Your task to perform on an android device: Clear all items from cart on costco.com. Search for asus rog on costco.com, select the first entry, add it to the cart, then select checkout. Image 0: 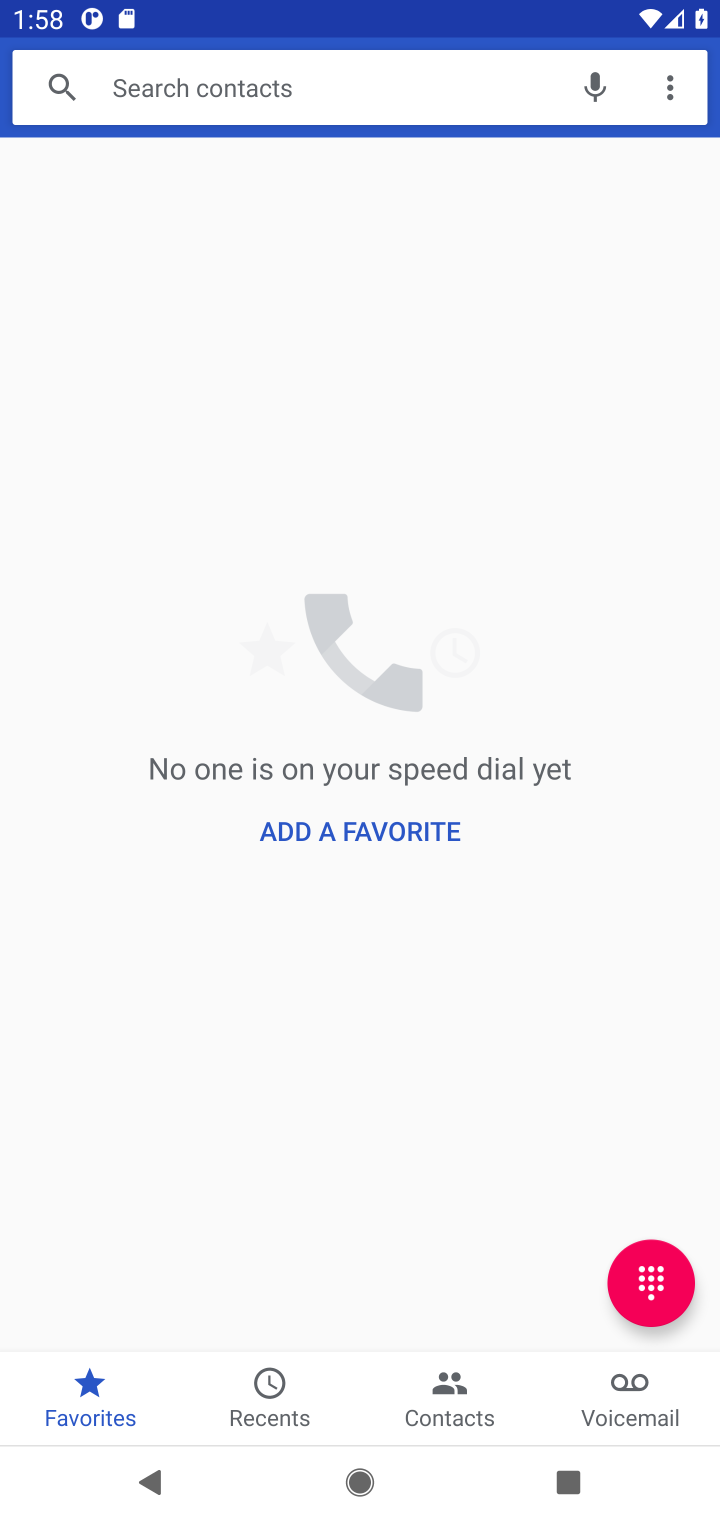
Step 0: press home button
Your task to perform on an android device: Clear all items from cart on costco.com. Search for asus rog on costco.com, select the first entry, add it to the cart, then select checkout. Image 1: 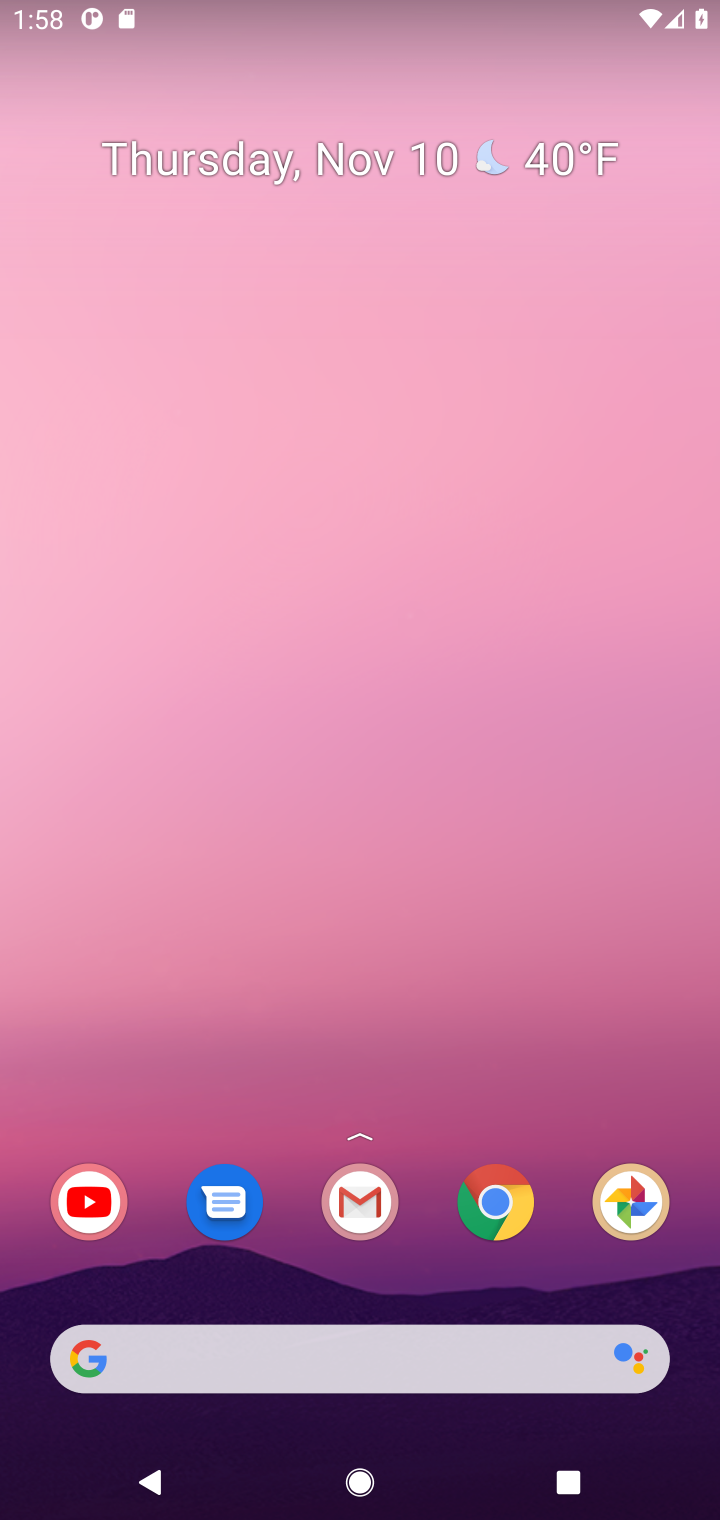
Step 1: click (490, 1210)
Your task to perform on an android device: Clear all items from cart on costco.com. Search for asus rog on costco.com, select the first entry, add it to the cart, then select checkout. Image 2: 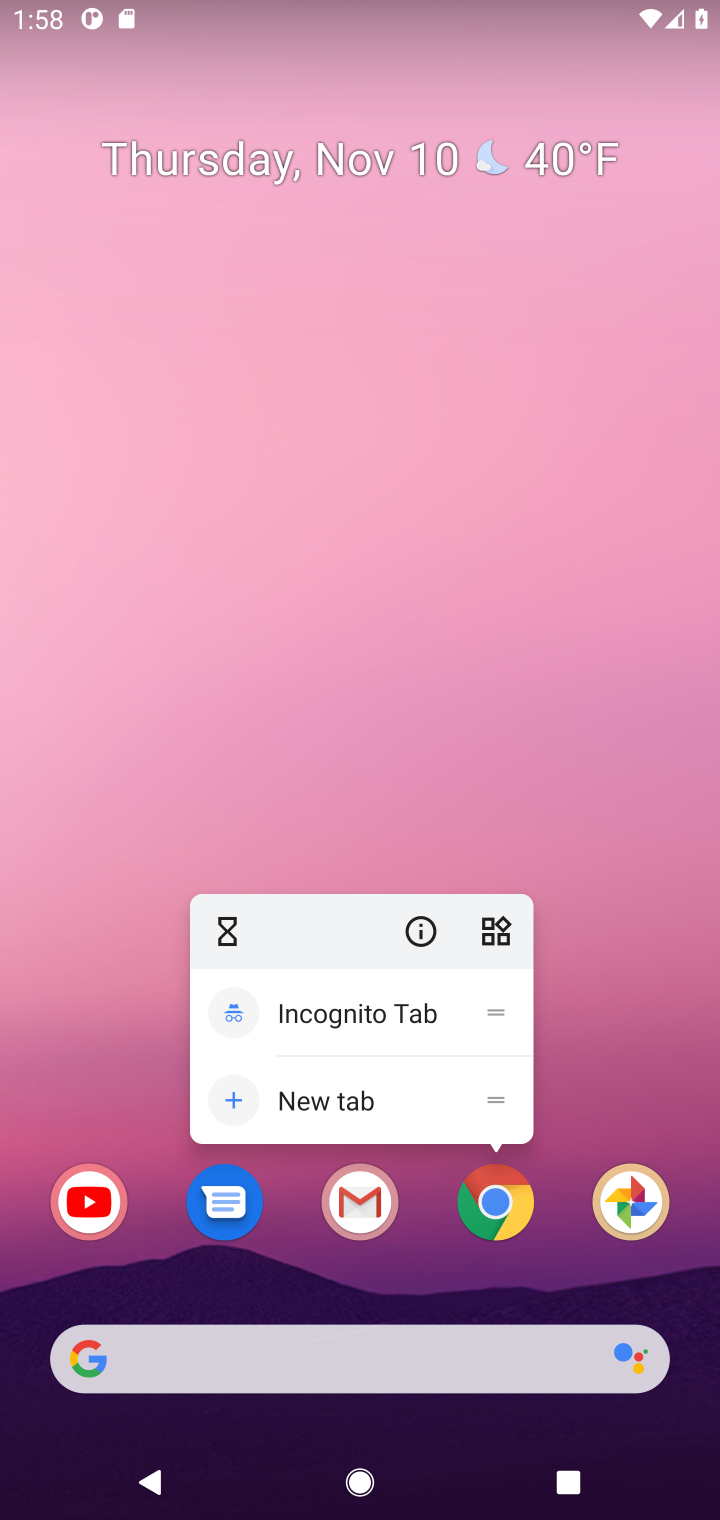
Step 2: click (490, 1208)
Your task to perform on an android device: Clear all items from cart on costco.com. Search for asus rog on costco.com, select the first entry, add it to the cart, then select checkout. Image 3: 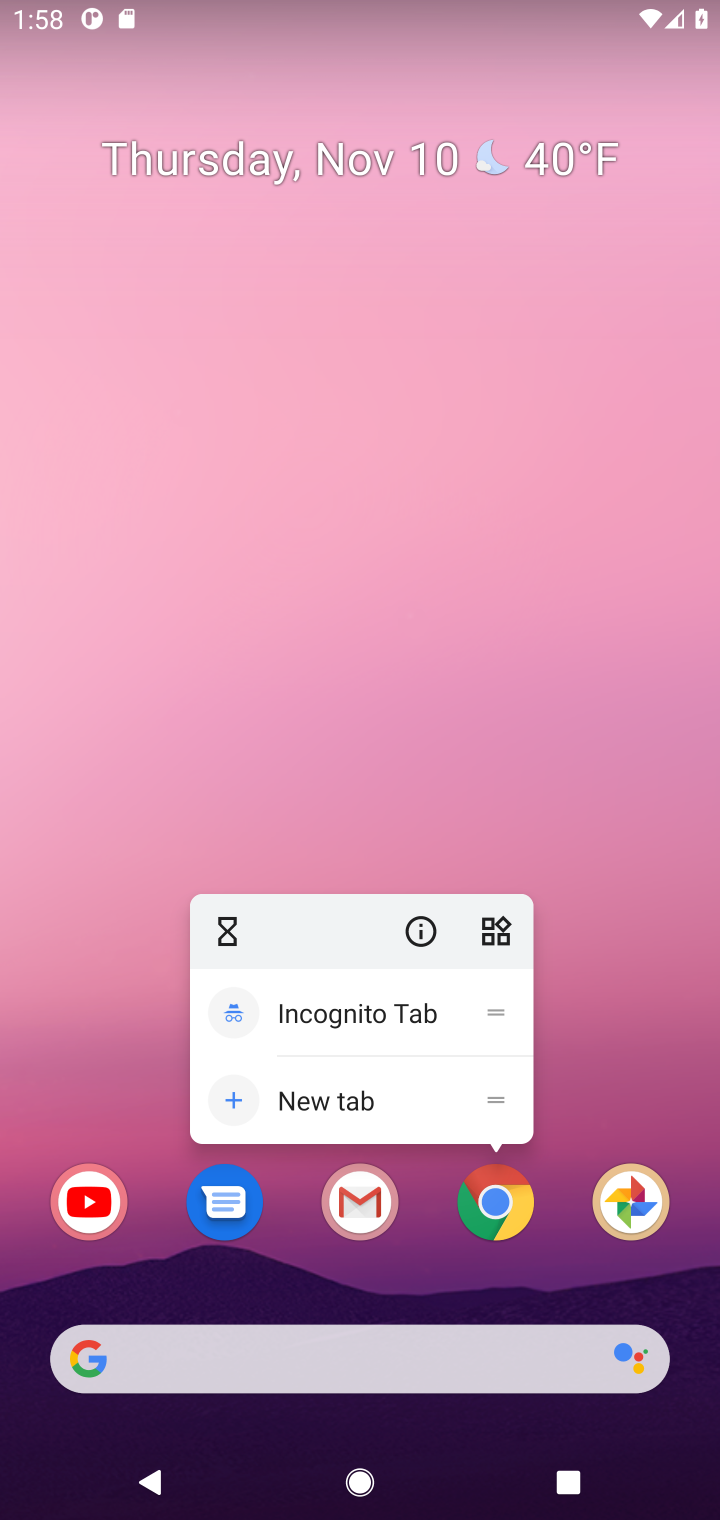
Step 3: click (490, 1210)
Your task to perform on an android device: Clear all items from cart on costco.com. Search for asus rog on costco.com, select the first entry, add it to the cart, then select checkout. Image 4: 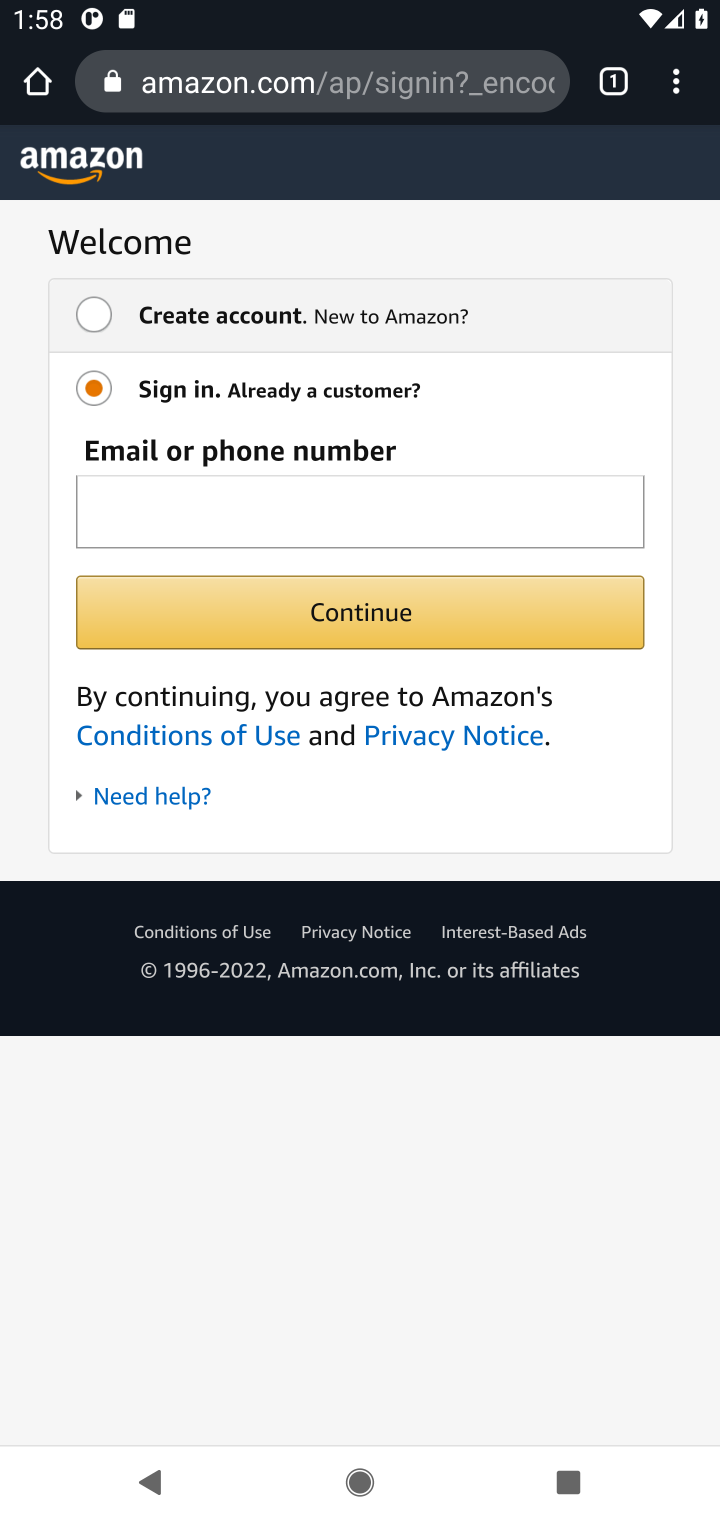
Step 4: click (390, 88)
Your task to perform on an android device: Clear all items from cart on costco.com. Search for asus rog on costco.com, select the first entry, add it to the cart, then select checkout. Image 5: 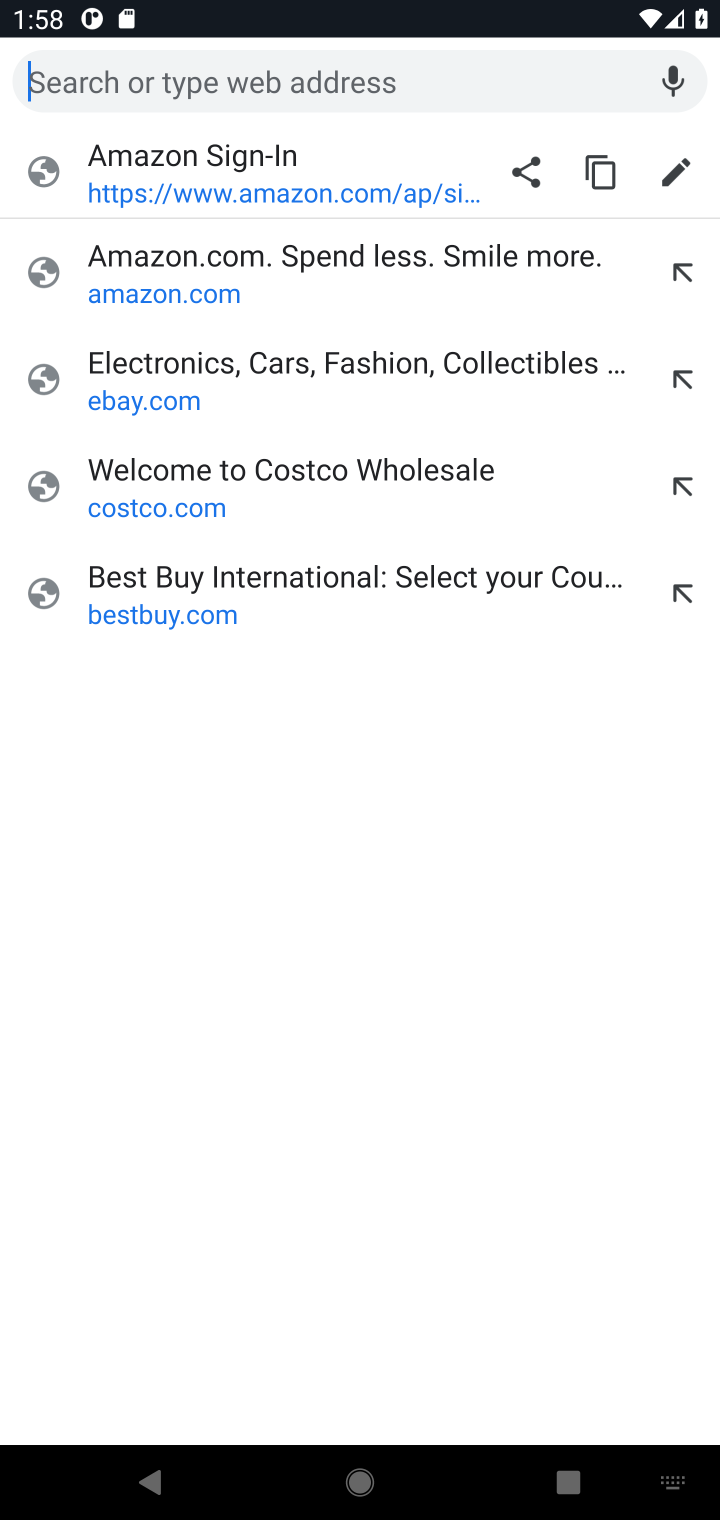
Step 5: click (129, 502)
Your task to perform on an android device: Clear all items from cart on costco.com. Search for asus rog on costco.com, select the first entry, add it to the cart, then select checkout. Image 6: 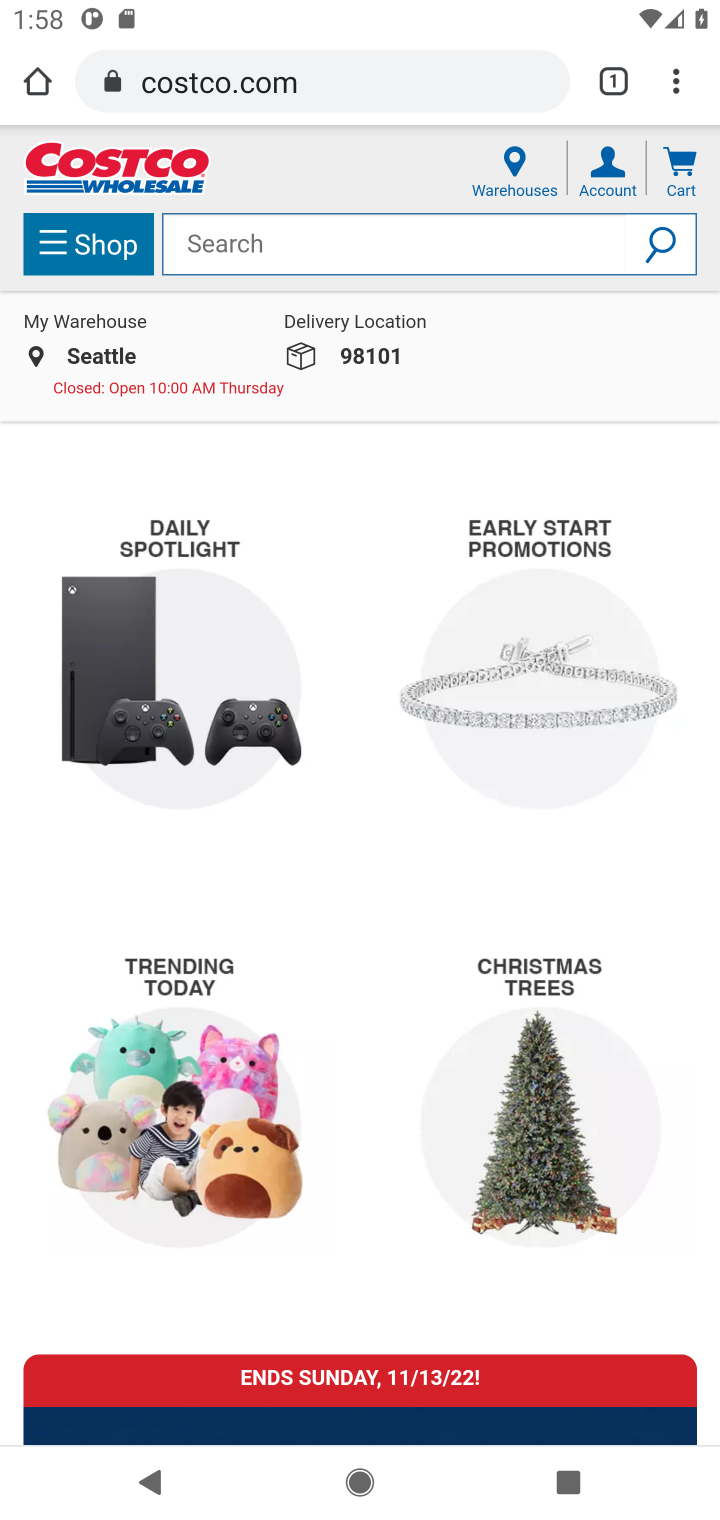
Step 6: click (323, 243)
Your task to perform on an android device: Clear all items from cart on costco.com. Search for asus rog on costco.com, select the first entry, add it to the cart, then select checkout. Image 7: 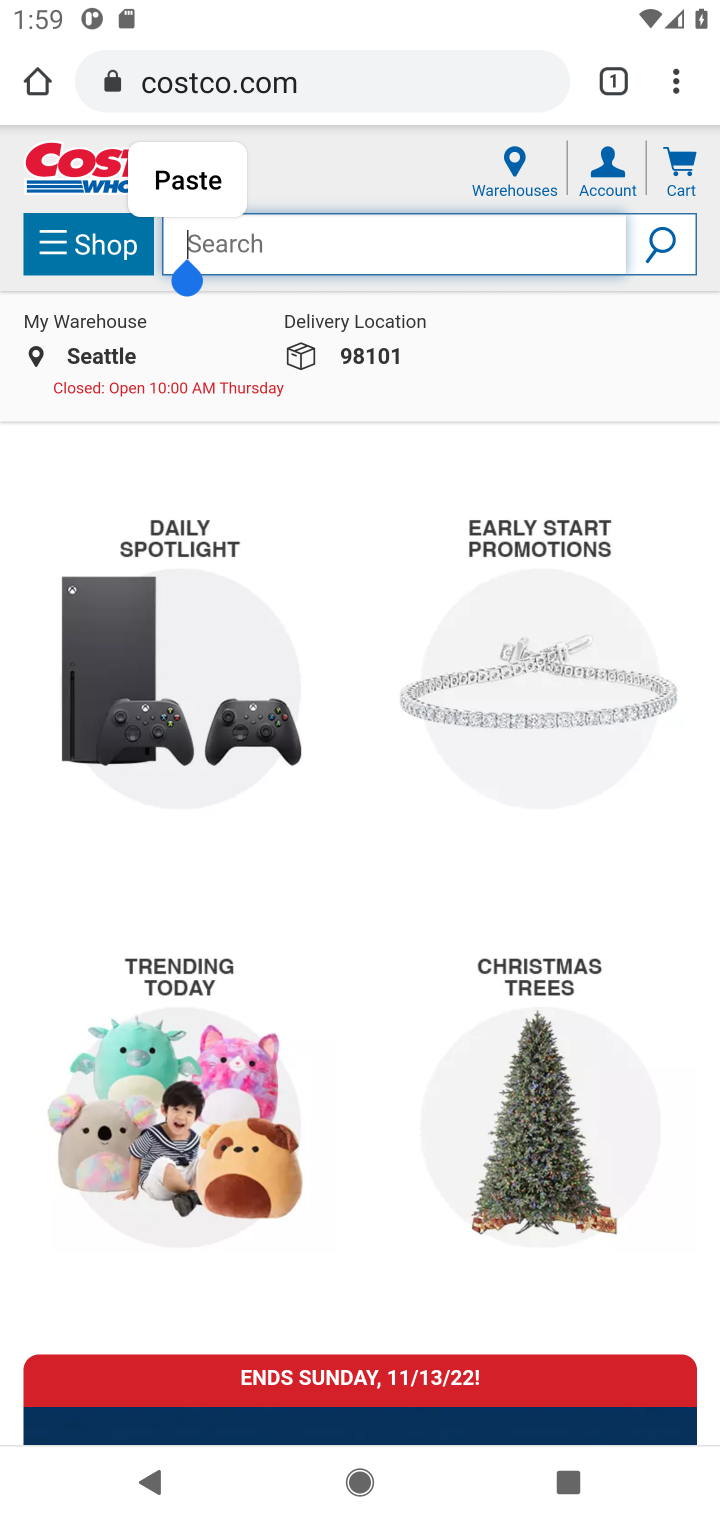
Step 7: type "asus rog"
Your task to perform on an android device: Clear all items from cart on costco.com. Search for asus rog on costco.com, select the first entry, add it to the cart, then select checkout. Image 8: 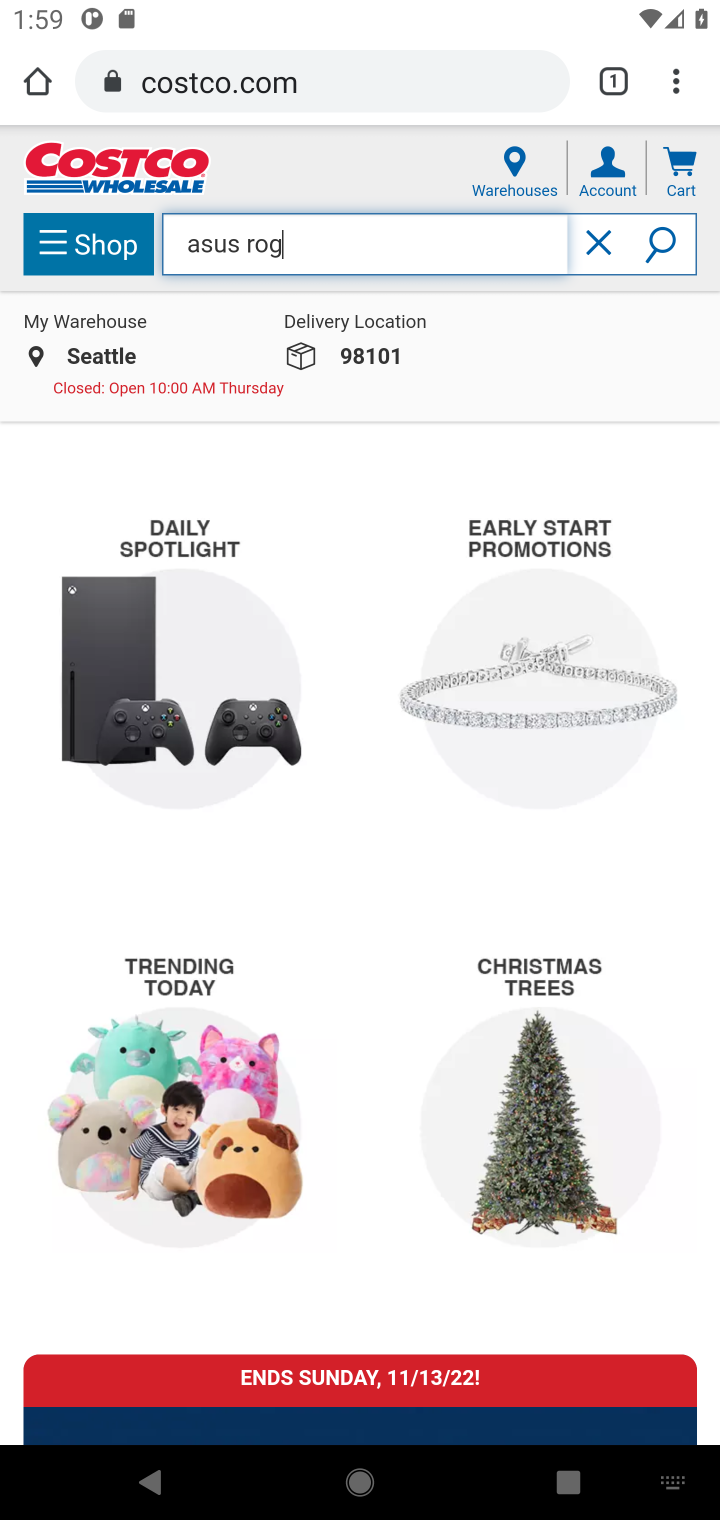
Step 8: press enter
Your task to perform on an android device: Clear all items from cart on costco.com. Search for asus rog on costco.com, select the first entry, add it to the cart, then select checkout. Image 9: 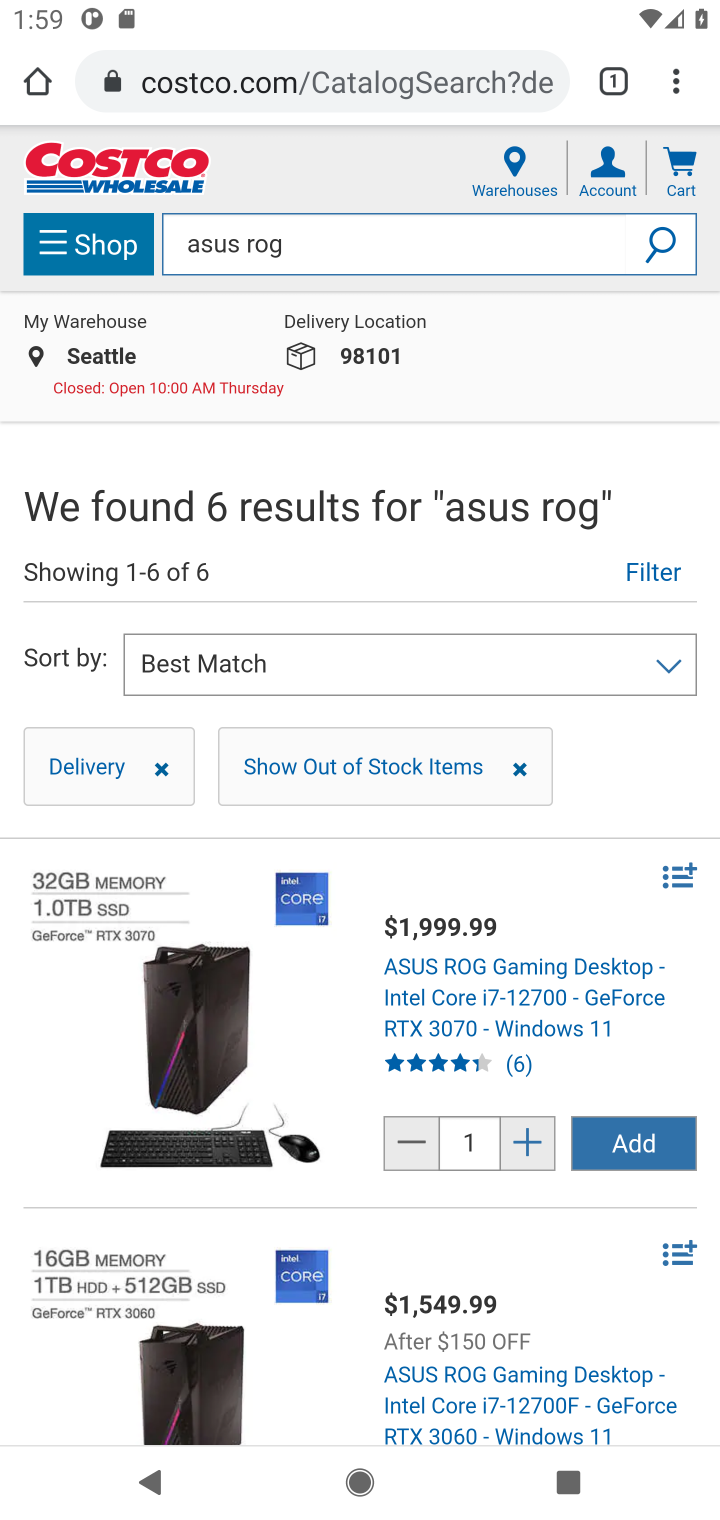
Step 9: click (636, 1135)
Your task to perform on an android device: Clear all items from cart on costco.com. Search for asus rog on costco.com, select the first entry, add it to the cart, then select checkout. Image 10: 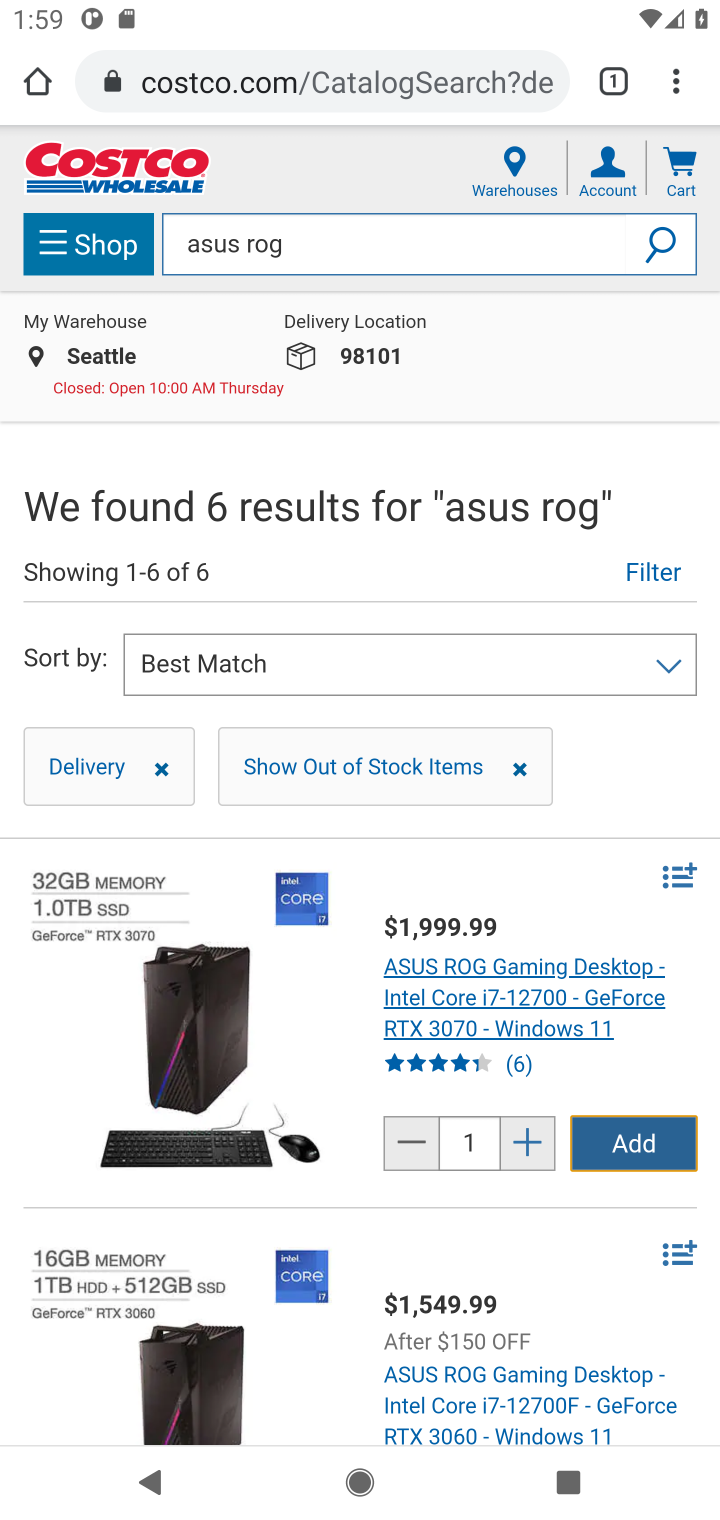
Step 10: click (639, 1152)
Your task to perform on an android device: Clear all items from cart on costco.com. Search for asus rog on costco.com, select the first entry, add it to the cart, then select checkout. Image 11: 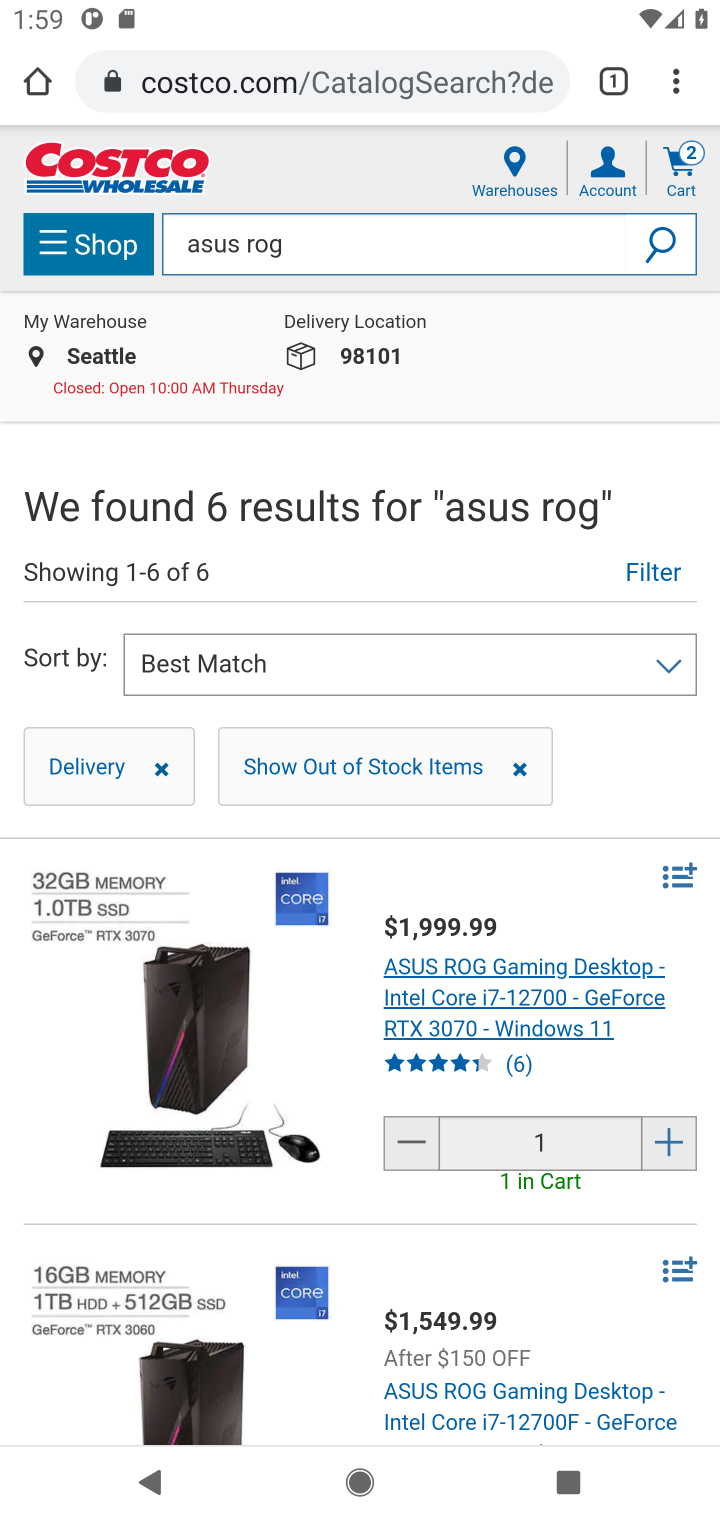
Step 11: click (687, 158)
Your task to perform on an android device: Clear all items from cart on costco.com. Search for asus rog on costco.com, select the first entry, add it to the cart, then select checkout. Image 12: 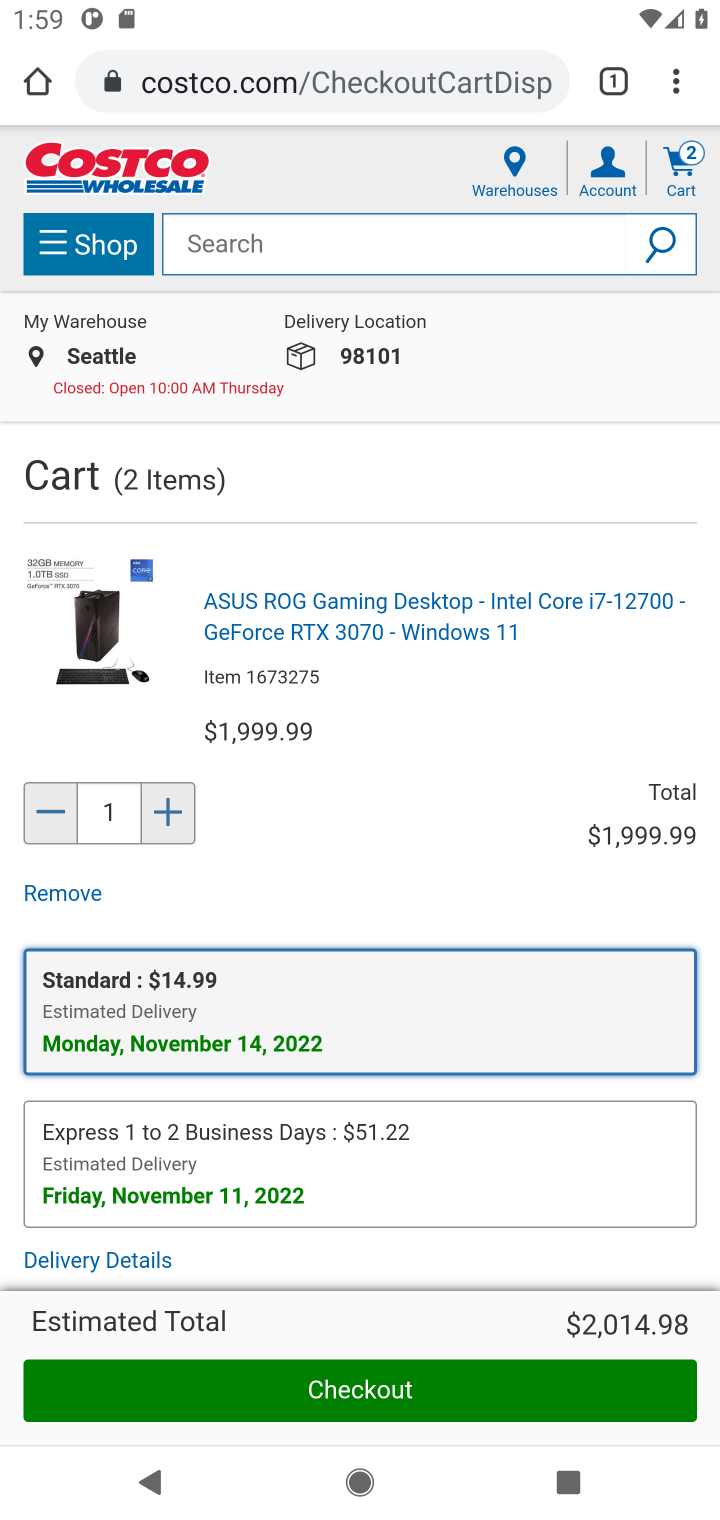
Step 12: click (397, 1387)
Your task to perform on an android device: Clear all items from cart on costco.com. Search for asus rog on costco.com, select the first entry, add it to the cart, then select checkout. Image 13: 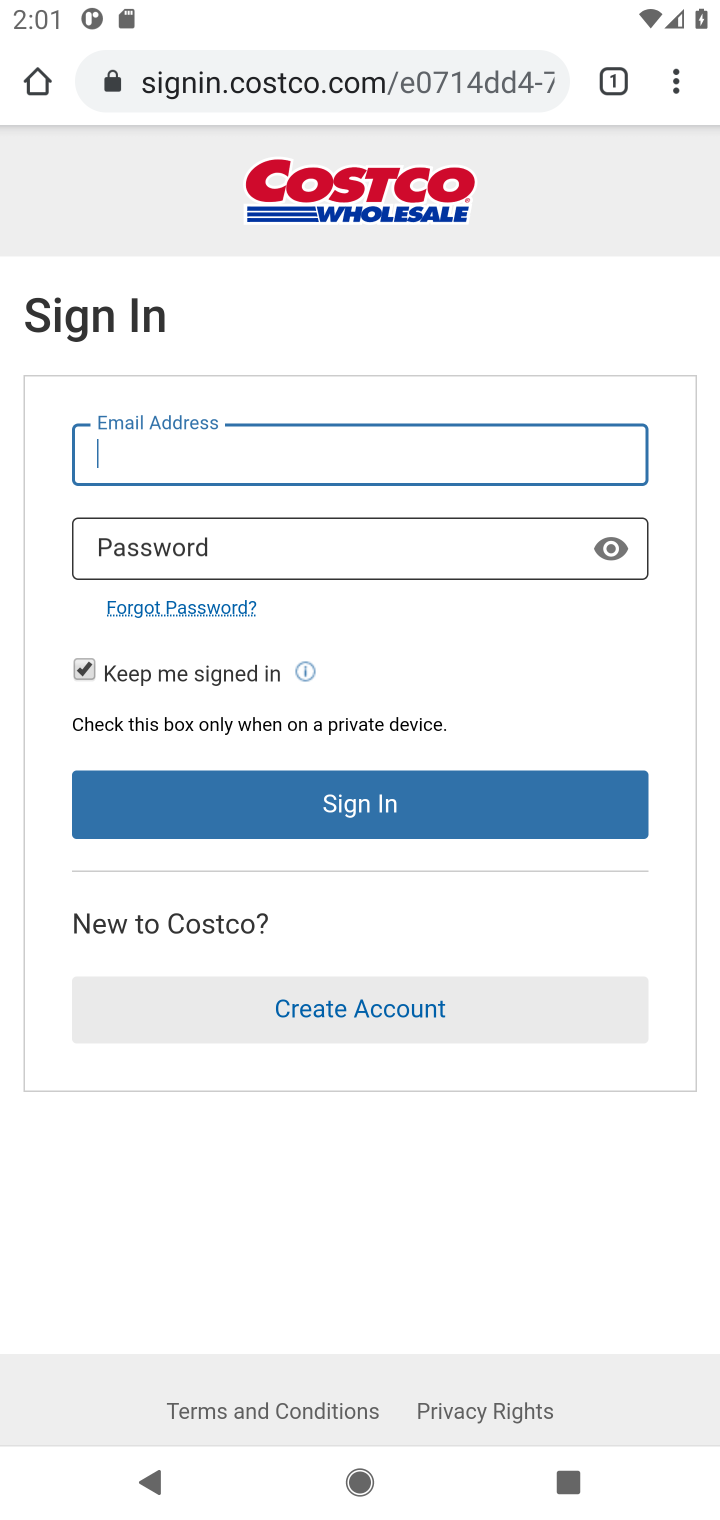
Step 13: task complete